Your task to perform on an android device: Open Wikipedia Image 0: 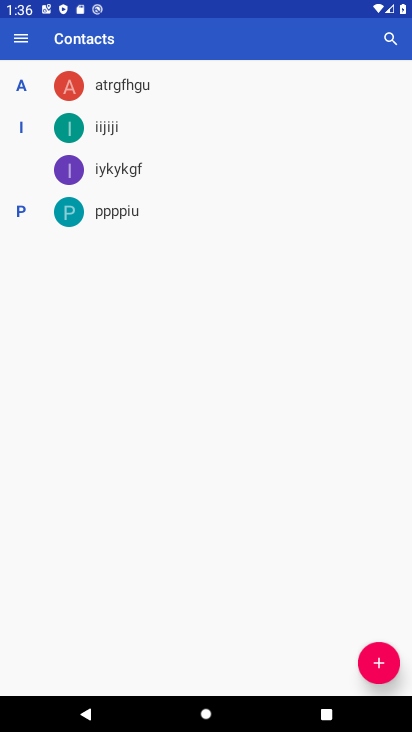
Step 0: press home button
Your task to perform on an android device: Open Wikipedia Image 1: 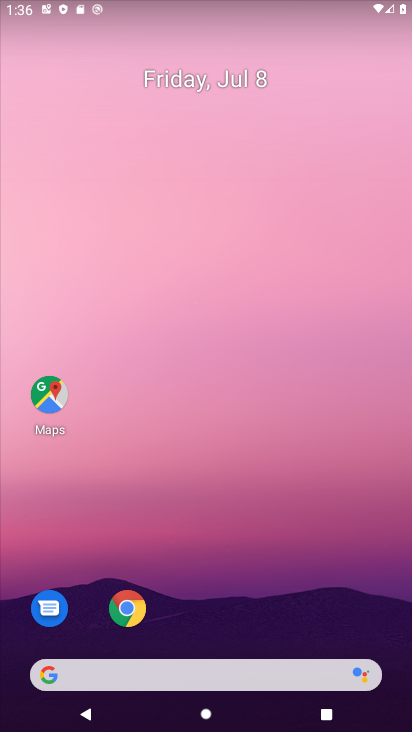
Step 1: click (127, 605)
Your task to perform on an android device: Open Wikipedia Image 2: 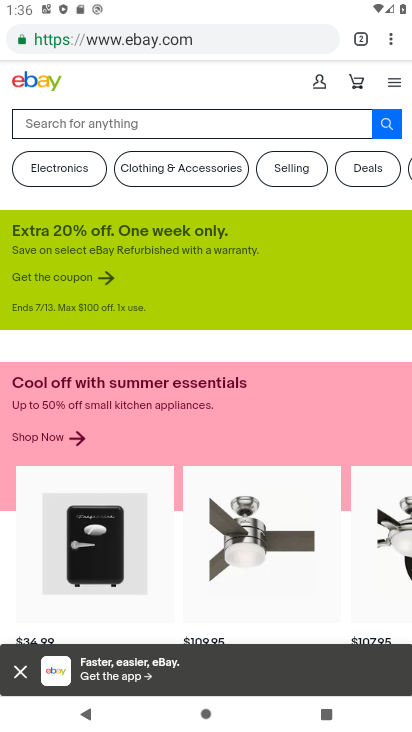
Step 2: click (227, 34)
Your task to perform on an android device: Open Wikipedia Image 3: 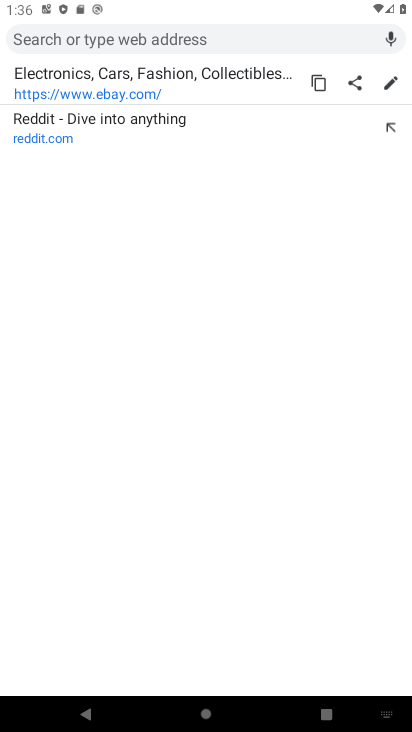
Step 3: type "Wikipedia"
Your task to perform on an android device: Open Wikipedia Image 4: 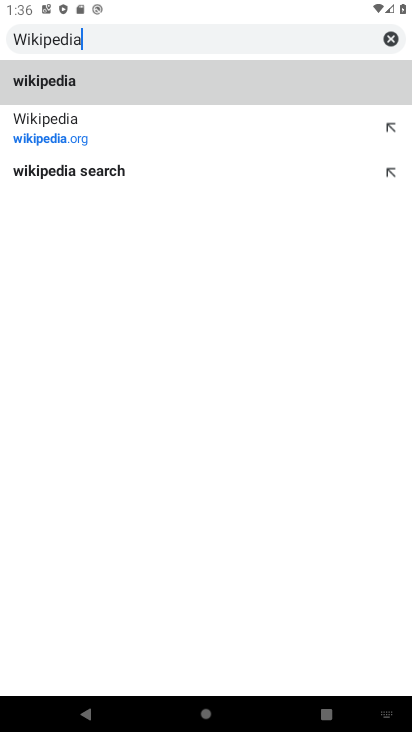
Step 4: click (80, 79)
Your task to perform on an android device: Open Wikipedia Image 5: 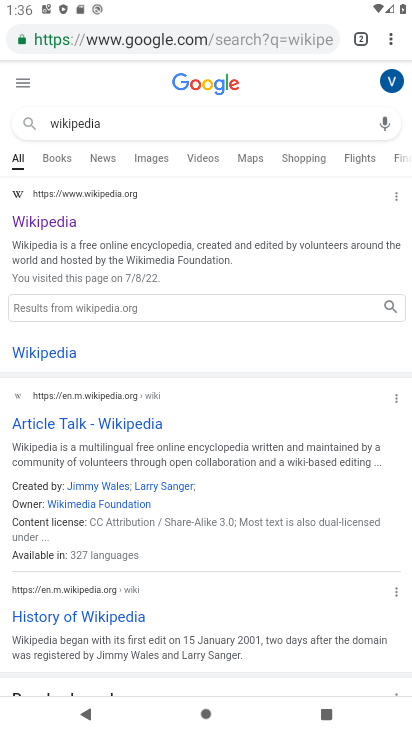
Step 5: click (43, 225)
Your task to perform on an android device: Open Wikipedia Image 6: 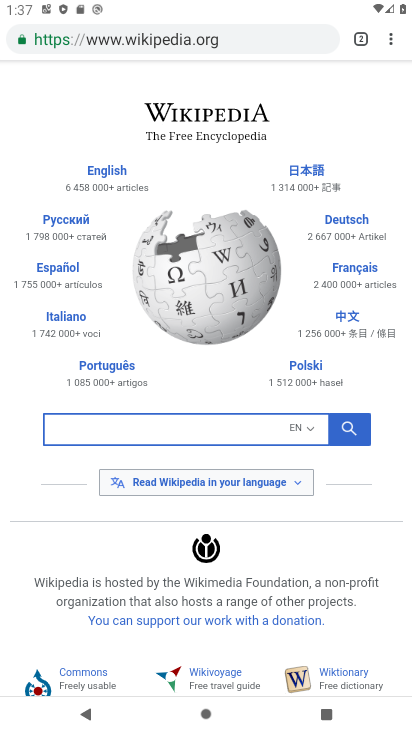
Step 6: task complete